Your task to perform on an android device: Open Google Maps Image 0: 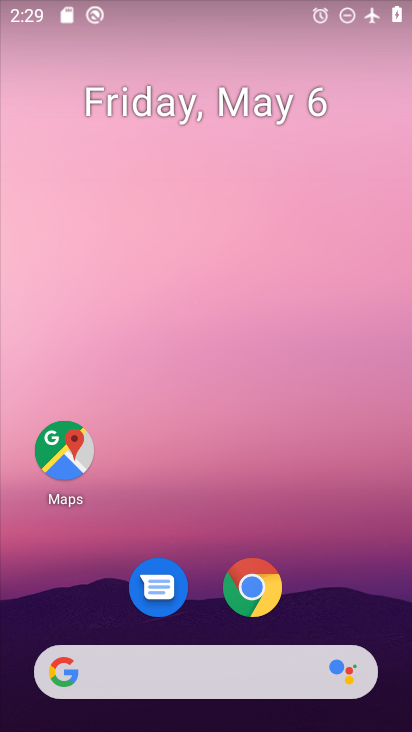
Step 0: click (63, 434)
Your task to perform on an android device: Open Google Maps Image 1: 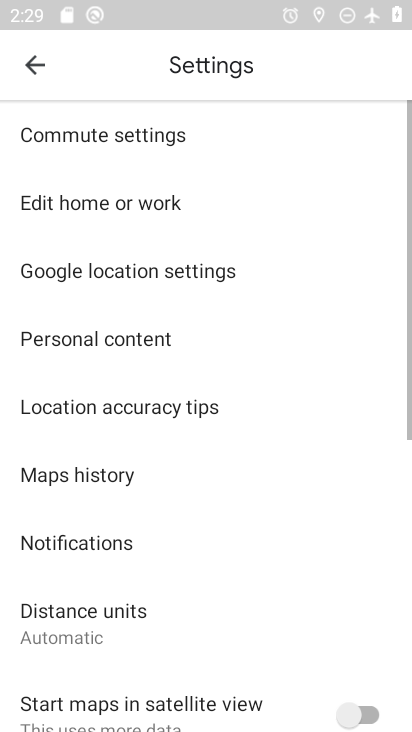
Step 1: click (39, 61)
Your task to perform on an android device: Open Google Maps Image 2: 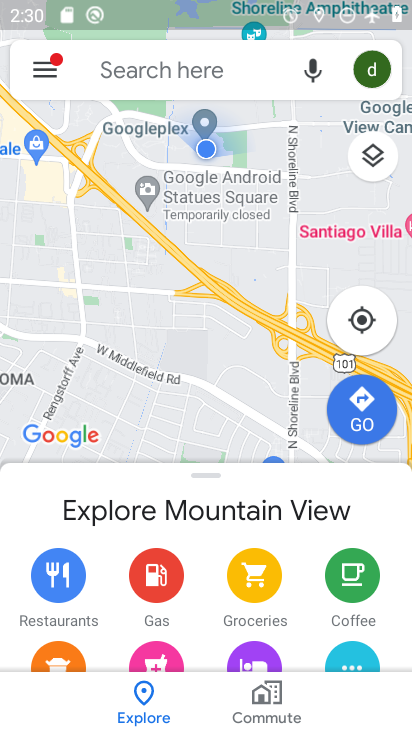
Step 2: task complete